Your task to perform on an android device: turn on translation in the chrome app Image 0: 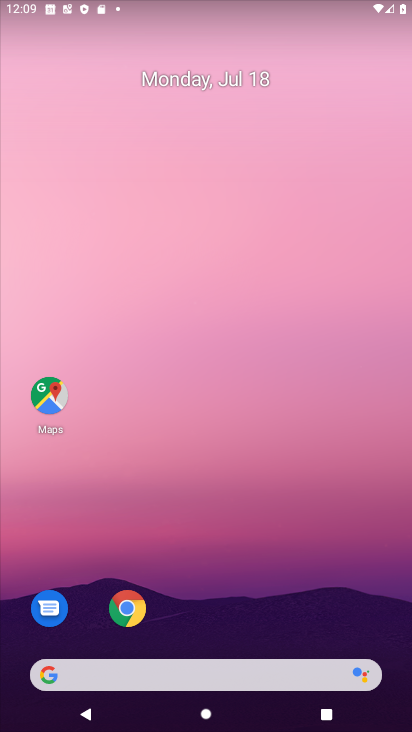
Step 0: click (126, 600)
Your task to perform on an android device: turn on translation in the chrome app Image 1: 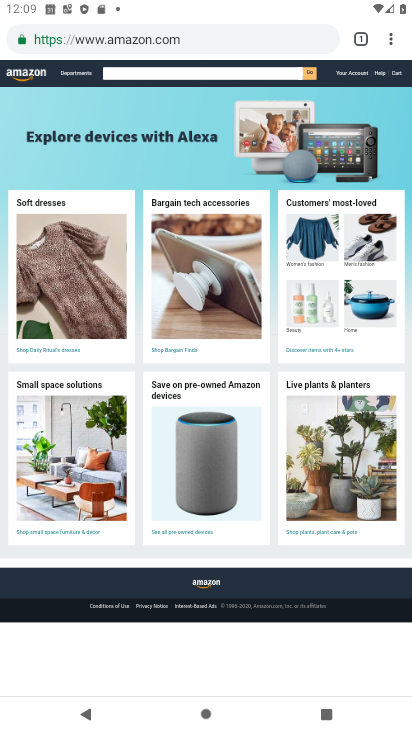
Step 1: click (399, 46)
Your task to perform on an android device: turn on translation in the chrome app Image 2: 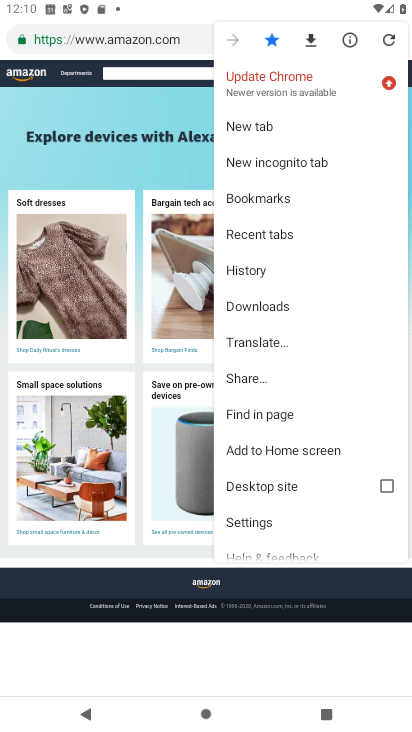
Step 2: click (249, 524)
Your task to perform on an android device: turn on translation in the chrome app Image 3: 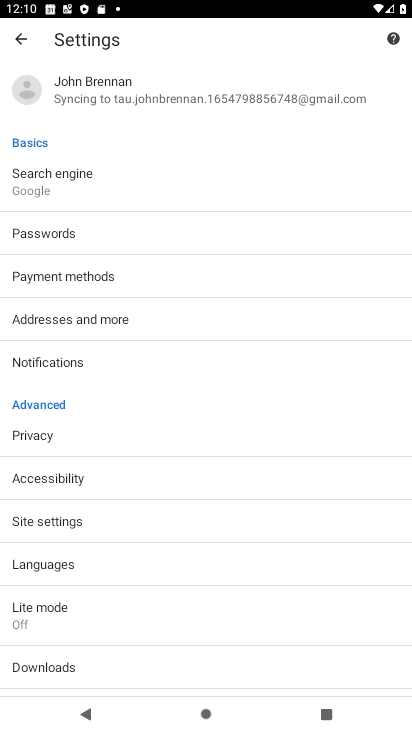
Step 3: click (201, 565)
Your task to perform on an android device: turn on translation in the chrome app Image 4: 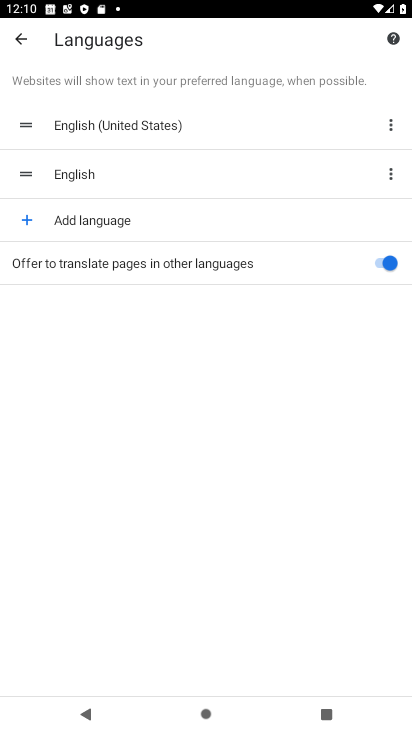
Step 4: task complete